Your task to perform on an android device: Search for vegetarian restaurants on Maps Image 0: 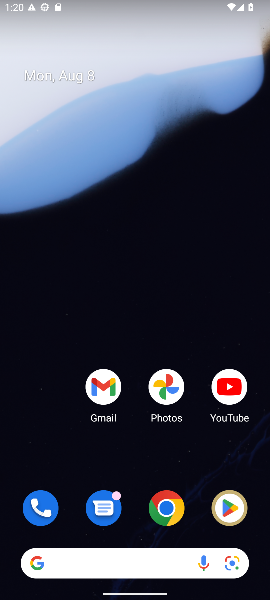
Step 0: drag from (138, 519) to (135, 134)
Your task to perform on an android device: Search for vegetarian restaurants on Maps Image 1: 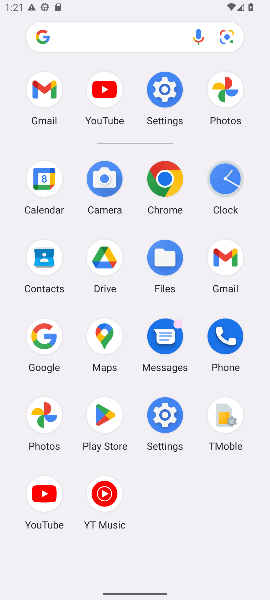
Step 1: click (101, 354)
Your task to perform on an android device: Search for vegetarian restaurants on Maps Image 2: 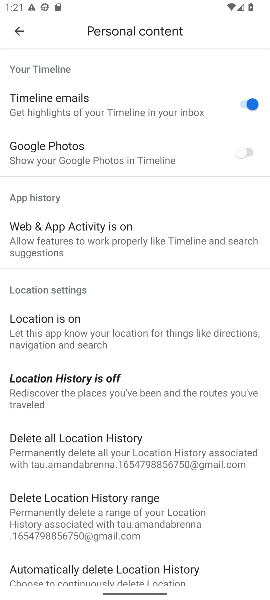
Step 2: press home button
Your task to perform on an android device: Search for vegetarian restaurants on Maps Image 3: 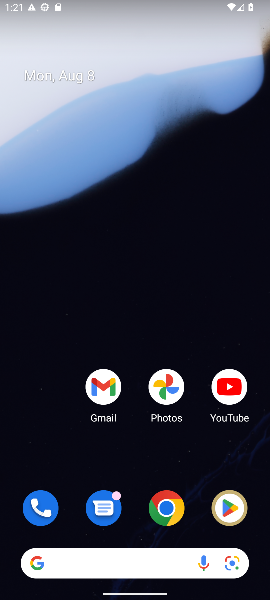
Step 3: drag from (122, 504) to (97, 4)
Your task to perform on an android device: Search for vegetarian restaurants on Maps Image 4: 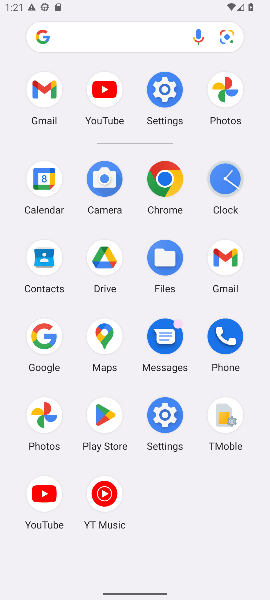
Step 4: drag from (137, 524) to (140, 287)
Your task to perform on an android device: Search for vegetarian restaurants on Maps Image 5: 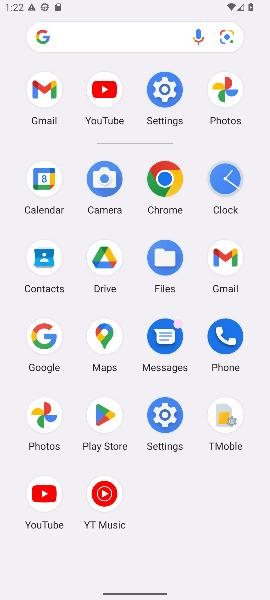
Step 5: click (110, 361)
Your task to perform on an android device: Search for vegetarian restaurants on Maps Image 6: 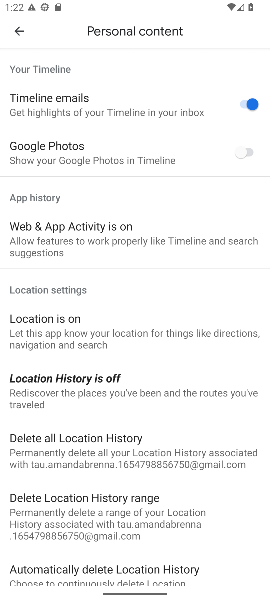
Step 6: click (103, 338)
Your task to perform on an android device: Search for vegetarian restaurants on Maps Image 7: 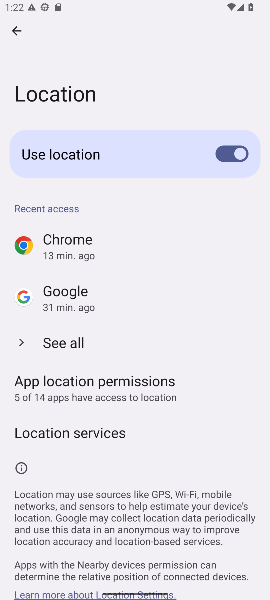
Step 7: click (14, 30)
Your task to perform on an android device: Search for vegetarian restaurants on Maps Image 8: 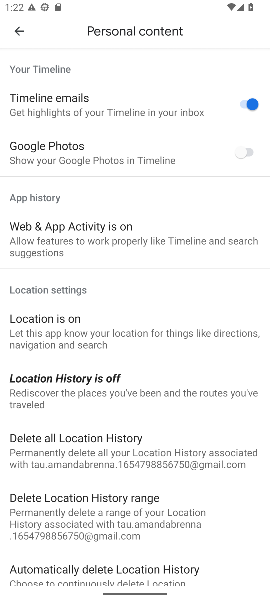
Step 8: click (15, 35)
Your task to perform on an android device: Search for vegetarian restaurants on Maps Image 9: 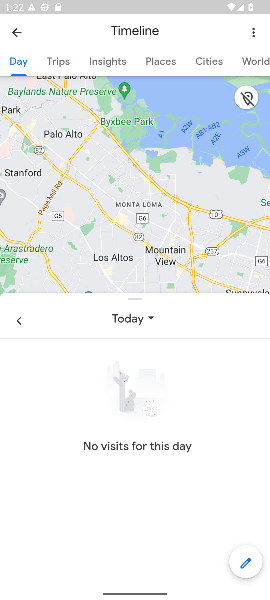
Step 9: click (11, 31)
Your task to perform on an android device: Search for vegetarian restaurants on Maps Image 10: 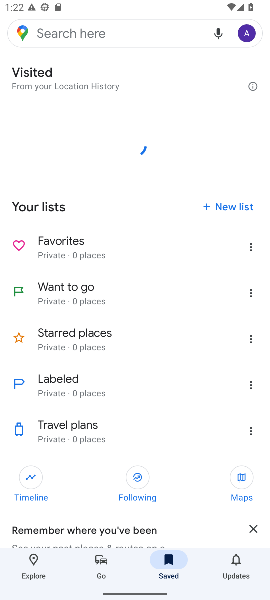
Step 10: click (65, 35)
Your task to perform on an android device: Search for vegetarian restaurants on Maps Image 11: 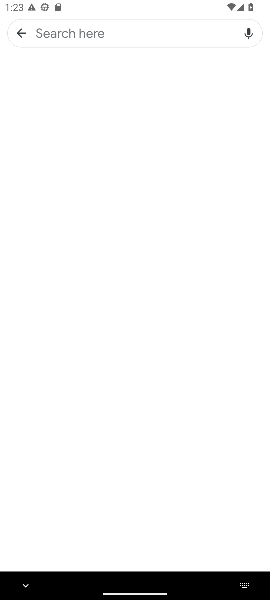
Step 11: type "vegetarian restaurants "
Your task to perform on an android device: Search for vegetarian restaurants on Maps Image 12: 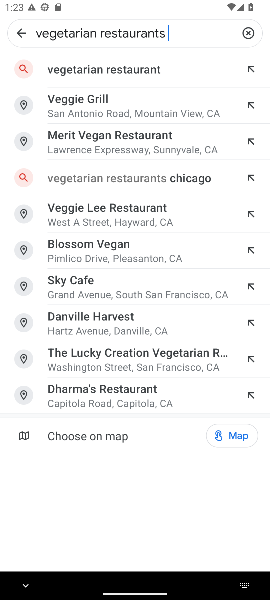
Step 12: click (125, 67)
Your task to perform on an android device: Search for vegetarian restaurants on Maps Image 13: 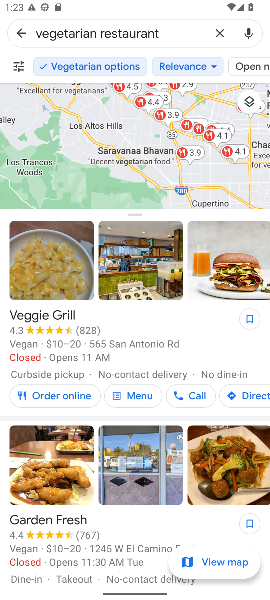
Step 13: task complete